Your task to perform on an android device: open app "Truecaller" (install if not already installed) Image 0: 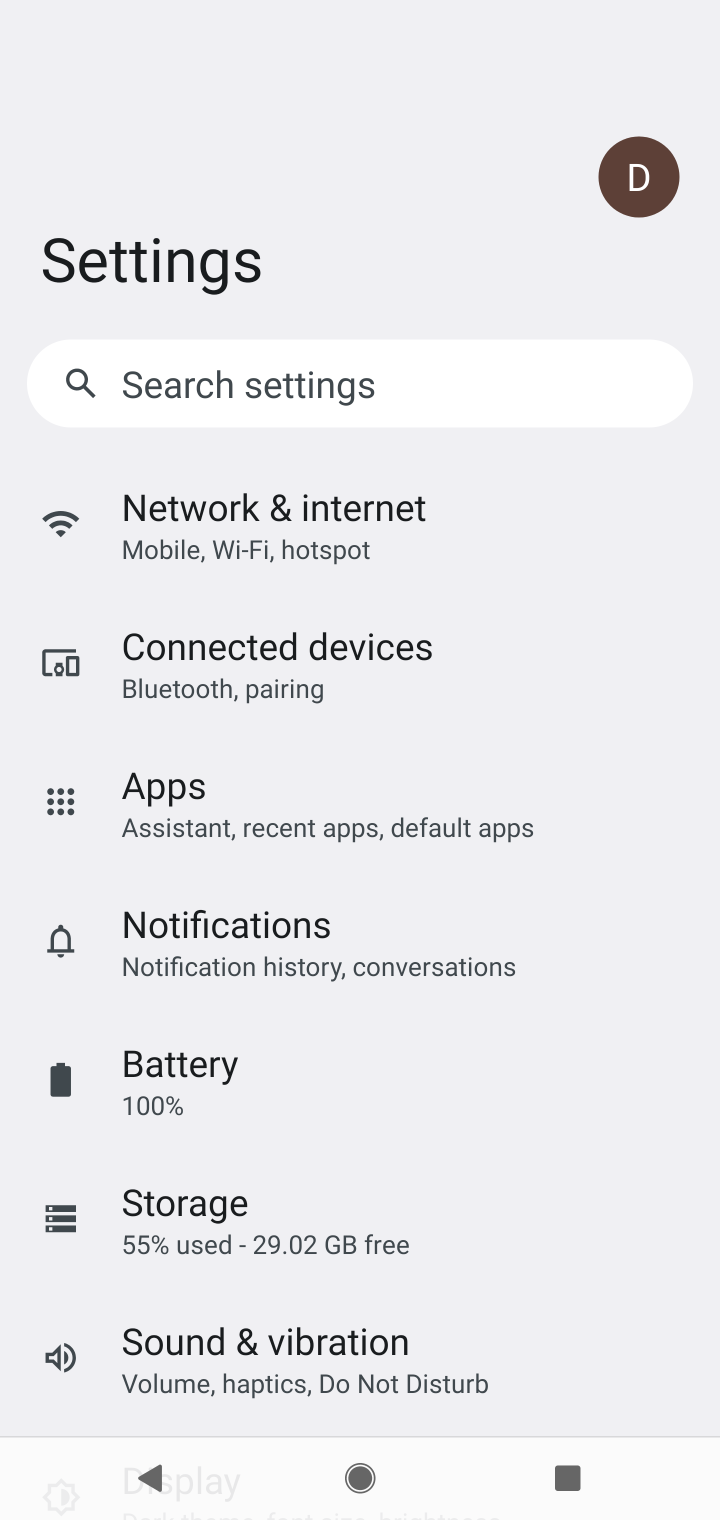
Step 0: task complete